Your task to perform on an android device: Go to Google maps Image 0: 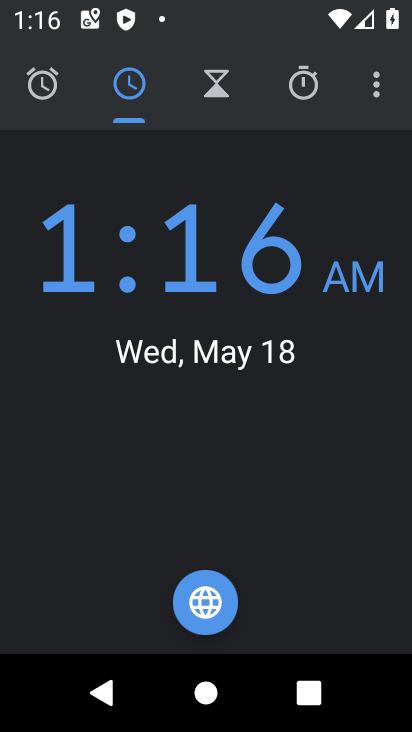
Step 0: press home button
Your task to perform on an android device: Go to Google maps Image 1: 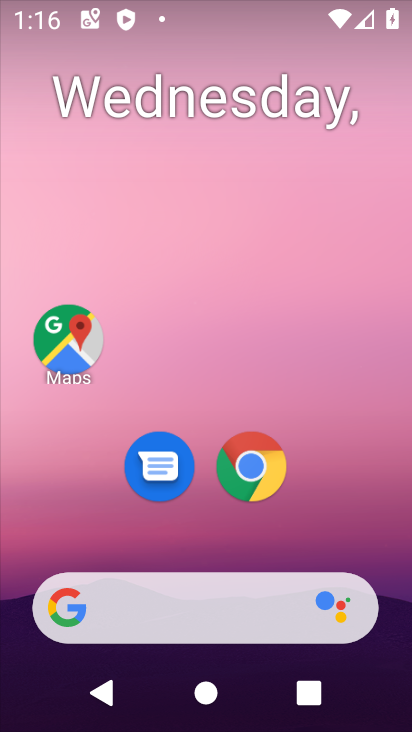
Step 1: click (50, 359)
Your task to perform on an android device: Go to Google maps Image 2: 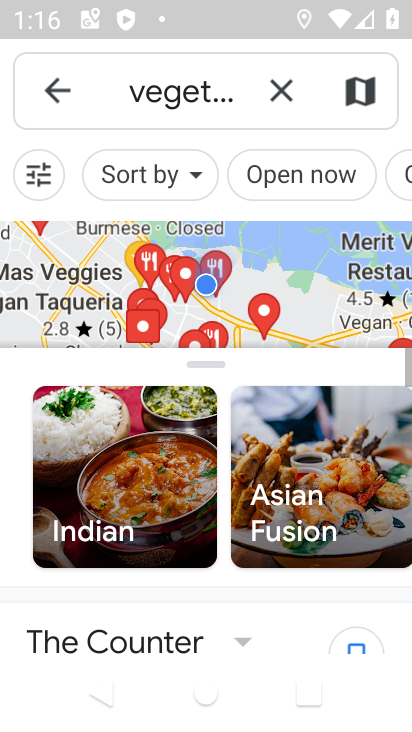
Step 2: task complete